Your task to perform on an android device: Open privacy settings Image 0: 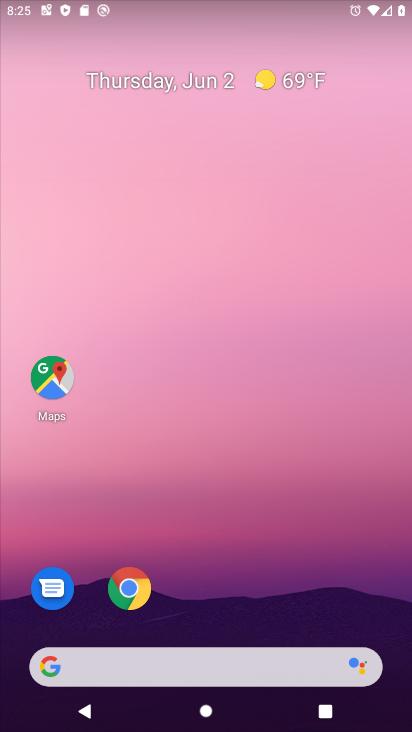
Step 0: drag from (240, 728) to (241, 84)
Your task to perform on an android device: Open privacy settings Image 1: 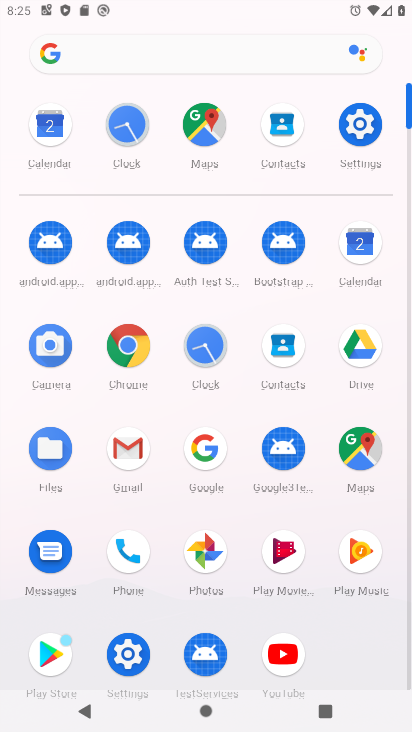
Step 1: click (360, 122)
Your task to perform on an android device: Open privacy settings Image 2: 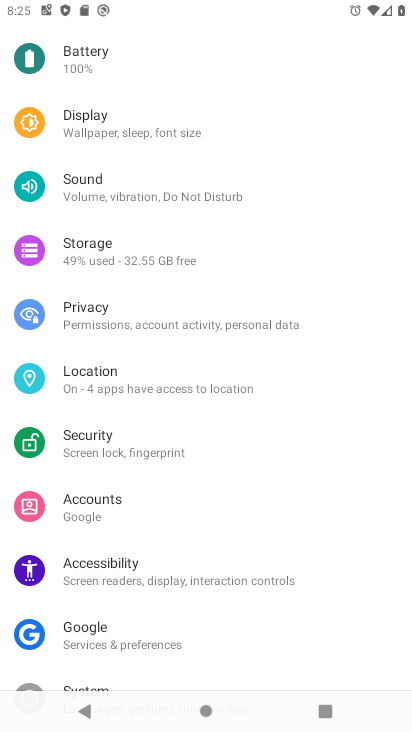
Step 2: click (90, 310)
Your task to perform on an android device: Open privacy settings Image 3: 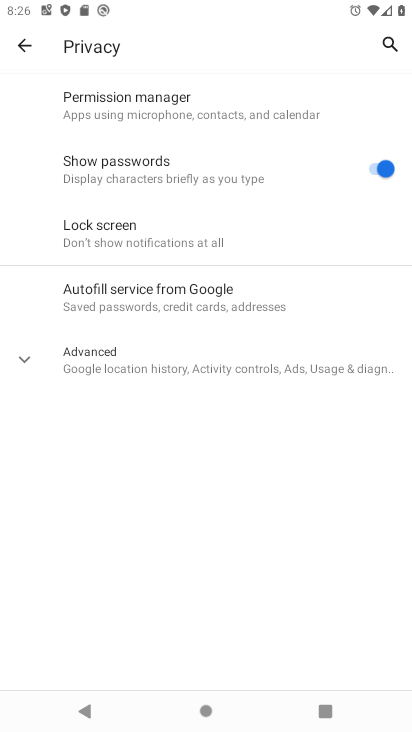
Step 3: task complete